Your task to perform on an android device: Turn off the flashlight Image 0: 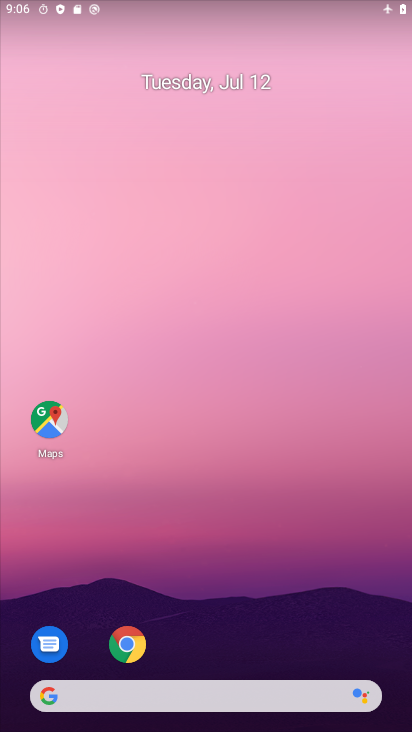
Step 0: drag from (217, 649) to (224, 157)
Your task to perform on an android device: Turn off the flashlight Image 1: 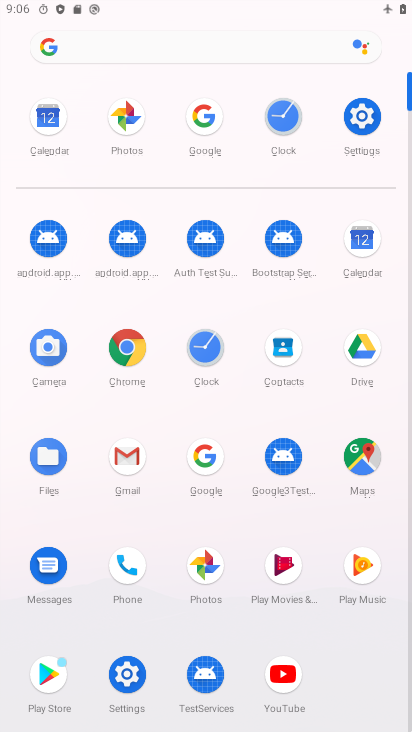
Step 1: click (376, 113)
Your task to perform on an android device: Turn off the flashlight Image 2: 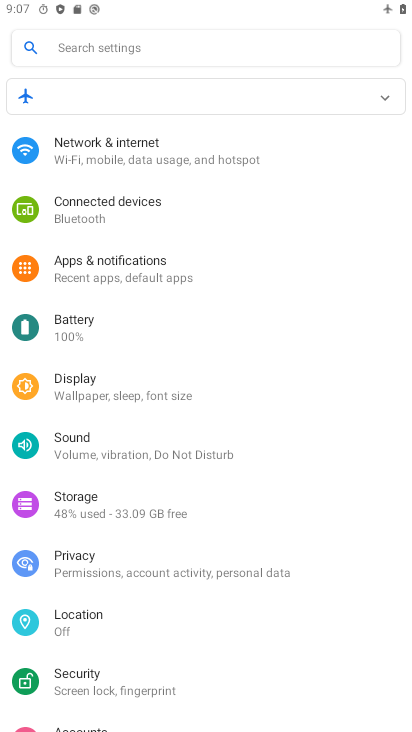
Step 2: task complete